Your task to perform on an android device: find which apps use the phone's location Image 0: 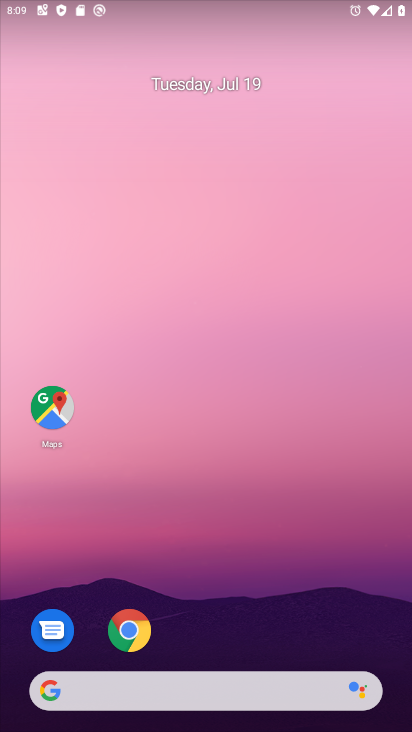
Step 0: drag from (179, 631) to (214, 7)
Your task to perform on an android device: find which apps use the phone's location Image 1: 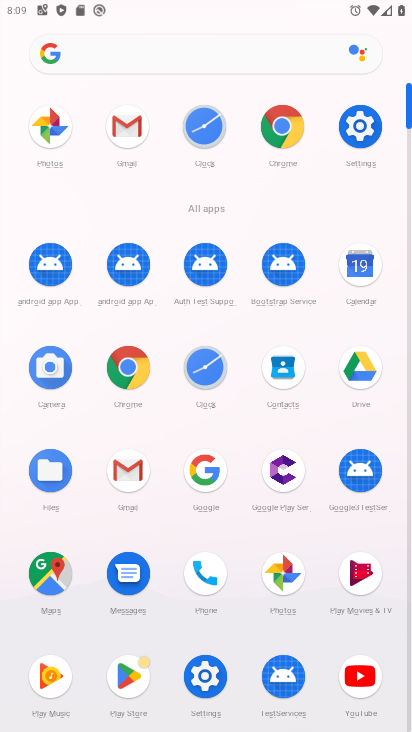
Step 1: click (363, 132)
Your task to perform on an android device: find which apps use the phone's location Image 2: 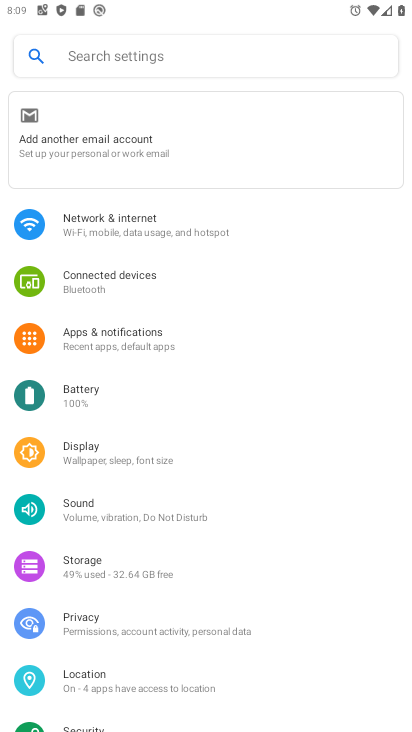
Step 2: click (79, 669)
Your task to perform on an android device: find which apps use the phone's location Image 3: 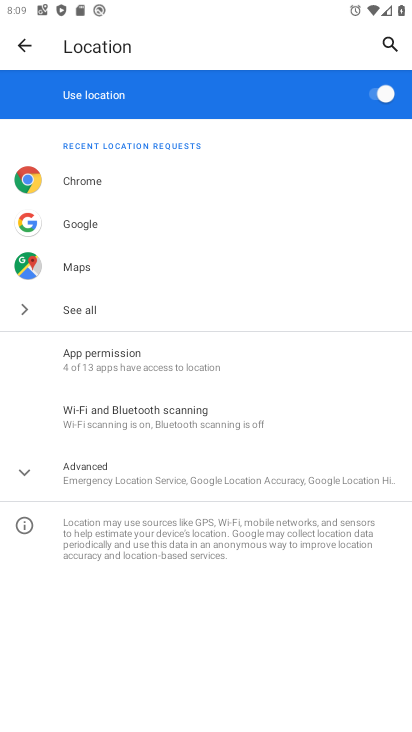
Step 3: click (97, 354)
Your task to perform on an android device: find which apps use the phone's location Image 4: 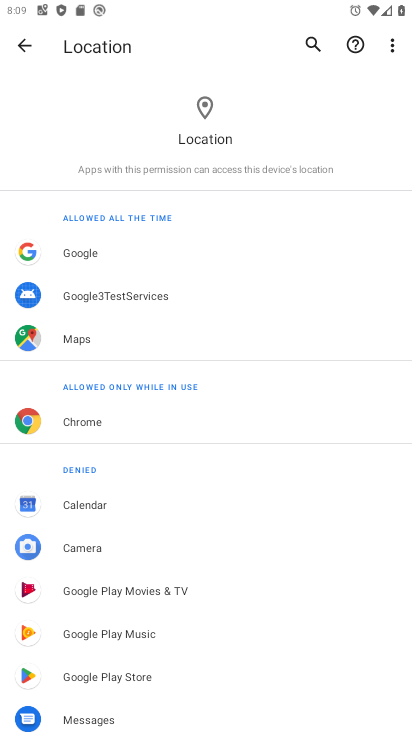
Step 4: task complete